Your task to perform on an android device: Turn off the flashlight Image 0: 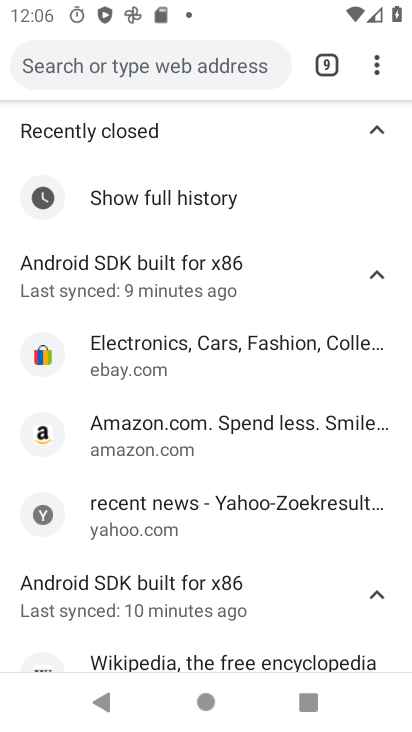
Step 0: drag from (312, 0) to (350, 343)
Your task to perform on an android device: Turn off the flashlight Image 1: 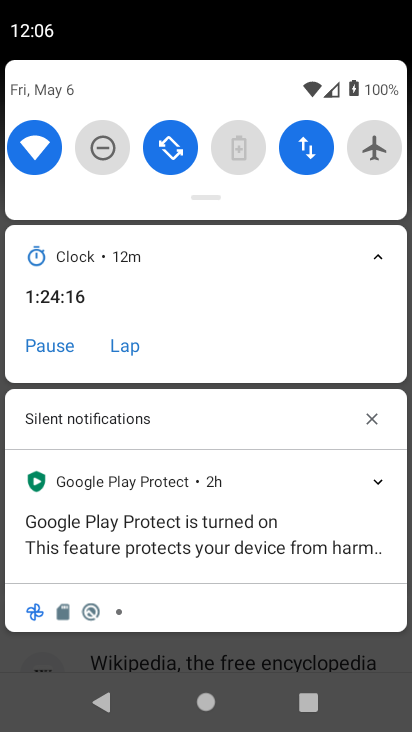
Step 1: task complete